Your task to perform on an android device: turn off data saver in the chrome app Image 0: 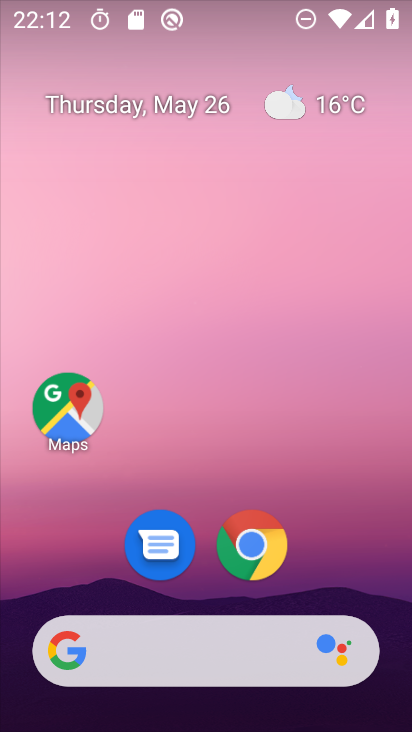
Step 0: click (247, 546)
Your task to perform on an android device: turn off data saver in the chrome app Image 1: 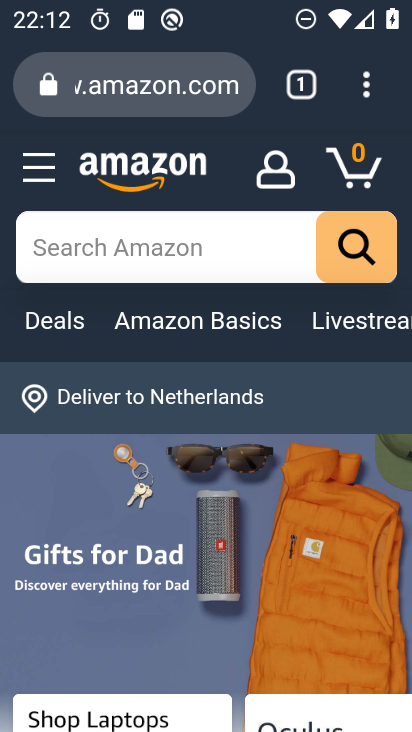
Step 1: click (354, 91)
Your task to perform on an android device: turn off data saver in the chrome app Image 2: 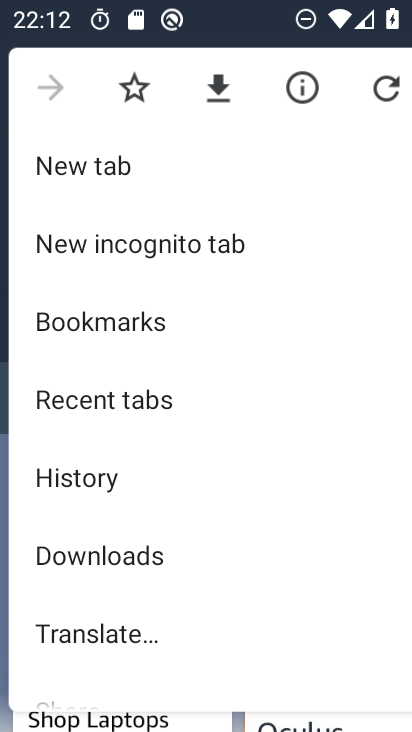
Step 2: drag from (256, 636) to (266, 251)
Your task to perform on an android device: turn off data saver in the chrome app Image 3: 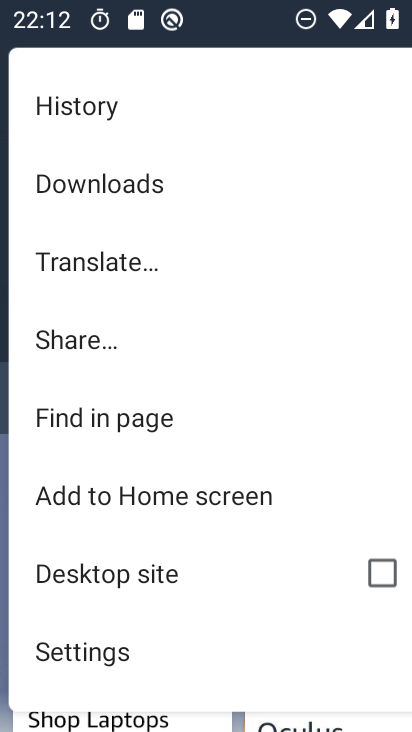
Step 3: click (137, 654)
Your task to perform on an android device: turn off data saver in the chrome app Image 4: 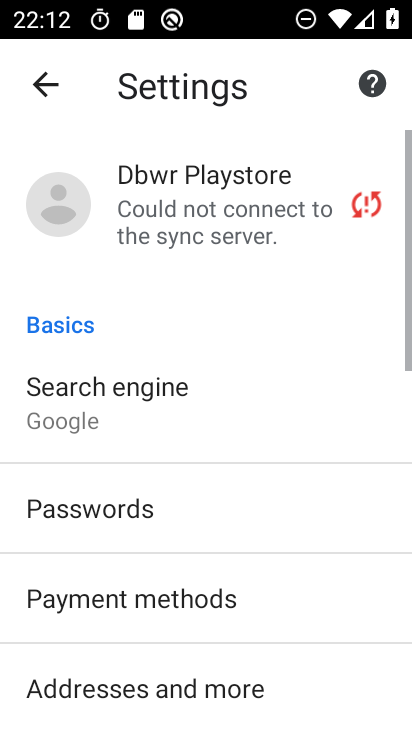
Step 4: drag from (223, 588) to (202, 139)
Your task to perform on an android device: turn off data saver in the chrome app Image 5: 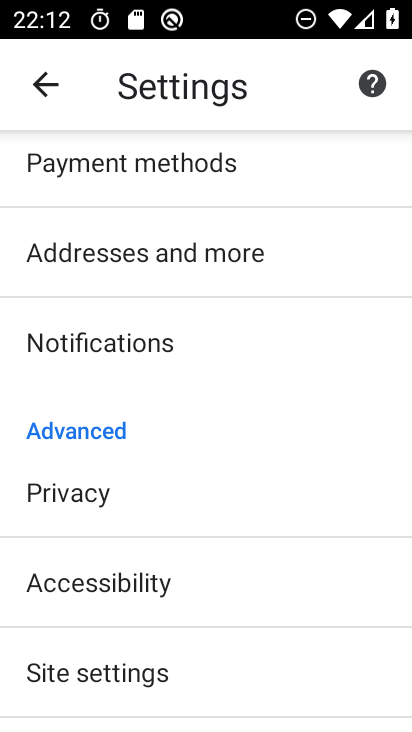
Step 5: drag from (165, 629) to (185, 311)
Your task to perform on an android device: turn off data saver in the chrome app Image 6: 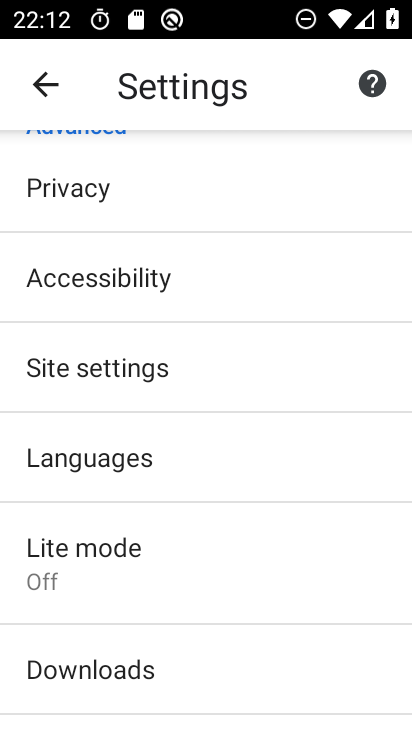
Step 6: click (104, 566)
Your task to perform on an android device: turn off data saver in the chrome app Image 7: 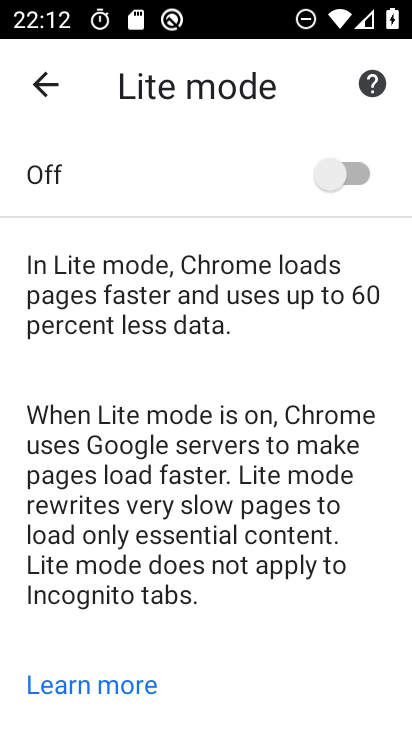
Step 7: task complete